Your task to perform on an android device: open a new tab in the chrome app Image 0: 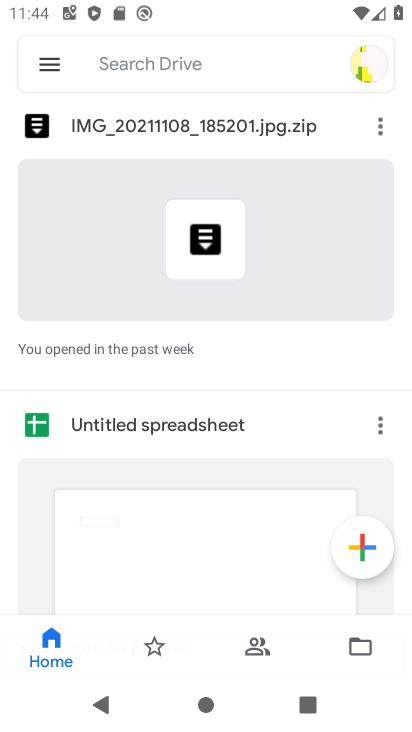
Step 0: press home button
Your task to perform on an android device: open a new tab in the chrome app Image 1: 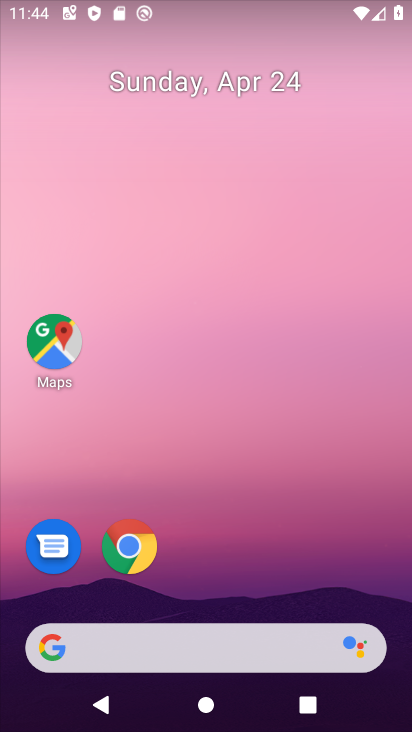
Step 1: click (136, 542)
Your task to perform on an android device: open a new tab in the chrome app Image 2: 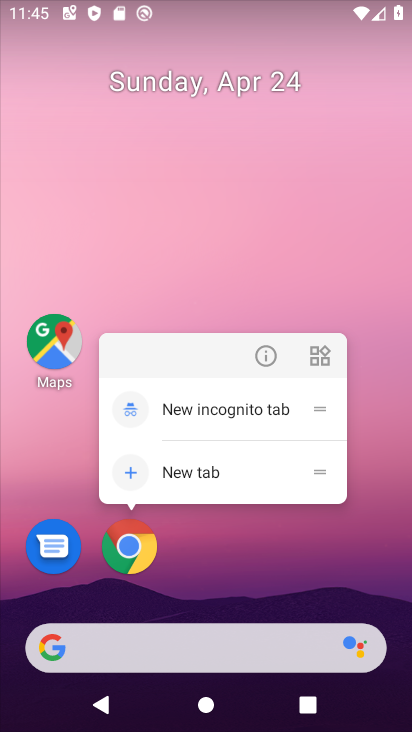
Step 2: click (127, 542)
Your task to perform on an android device: open a new tab in the chrome app Image 3: 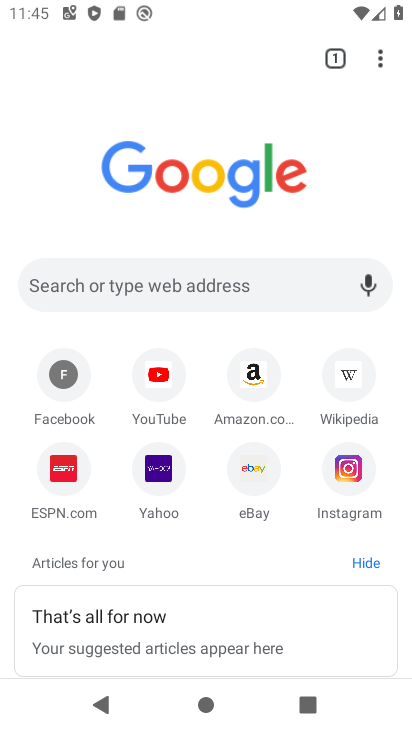
Step 3: click (330, 58)
Your task to perform on an android device: open a new tab in the chrome app Image 4: 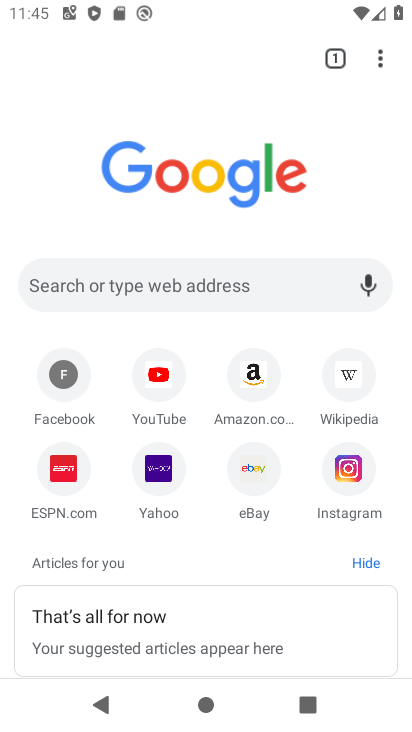
Step 4: click (340, 61)
Your task to perform on an android device: open a new tab in the chrome app Image 5: 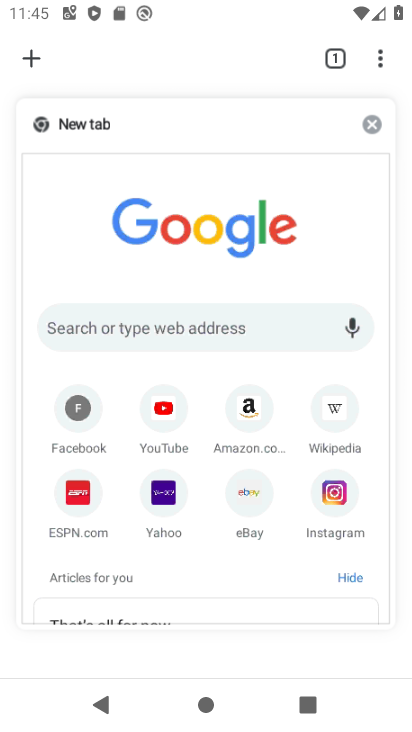
Step 5: click (333, 61)
Your task to perform on an android device: open a new tab in the chrome app Image 6: 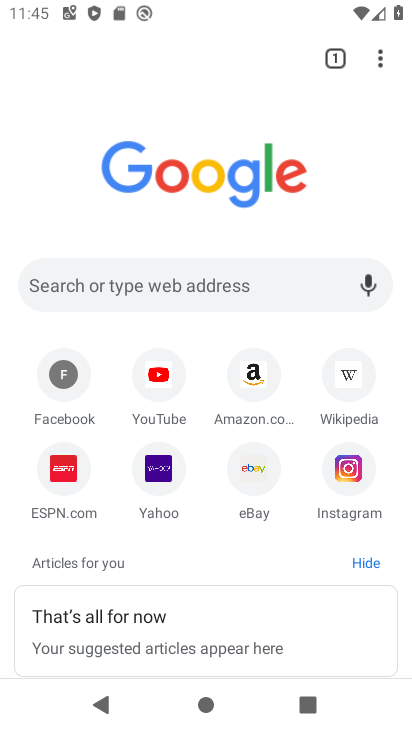
Step 6: click (32, 55)
Your task to perform on an android device: open a new tab in the chrome app Image 7: 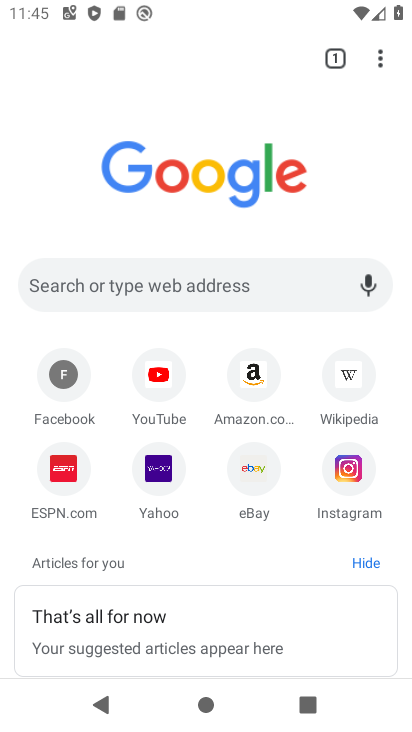
Step 7: task complete